Your task to perform on an android device: clear all cookies in the chrome app Image 0: 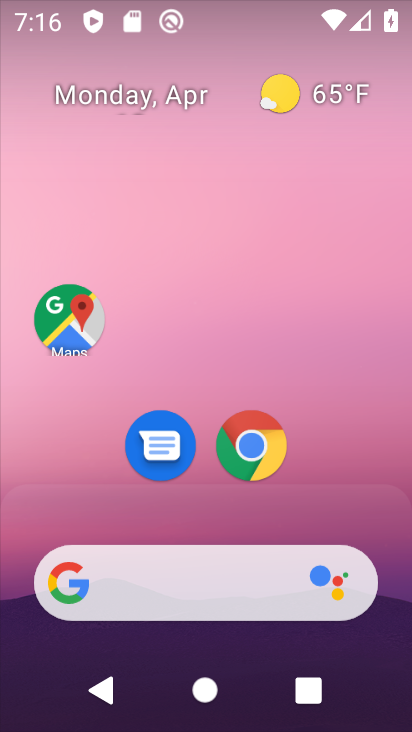
Step 0: click (256, 440)
Your task to perform on an android device: clear all cookies in the chrome app Image 1: 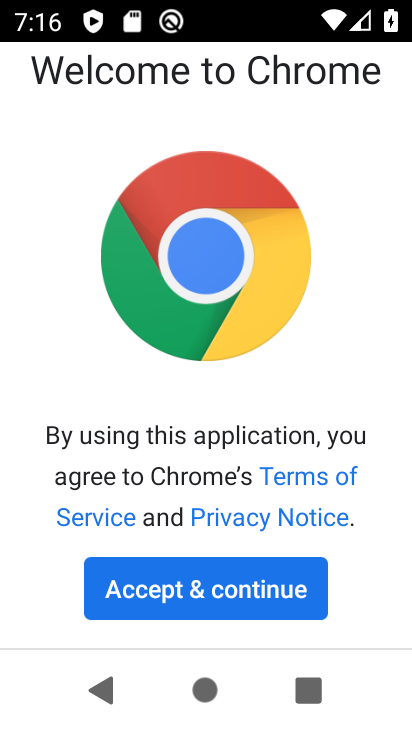
Step 1: click (223, 583)
Your task to perform on an android device: clear all cookies in the chrome app Image 2: 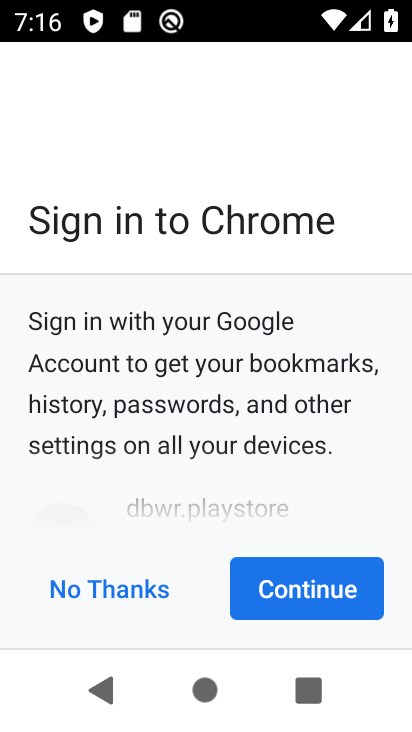
Step 2: click (259, 588)
Your task to perform on an android device: clear all cookies in the chrome app Image 3: 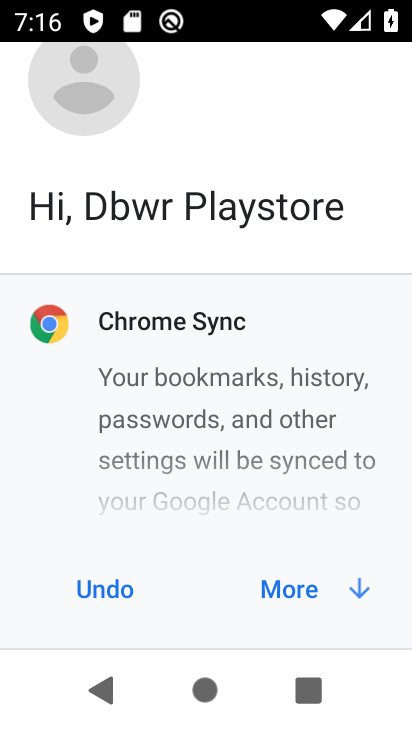
Step 3: click (273, 587)
Your task to perform on an android device: clear all cookies in the chrome app Image 4: 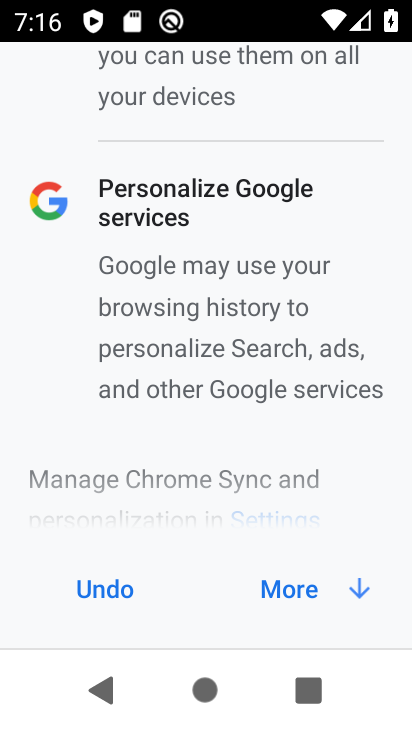
Step 4: click (273, 587)
Your task to perform on an android device: clear all cookies in the chrome app Image 5: 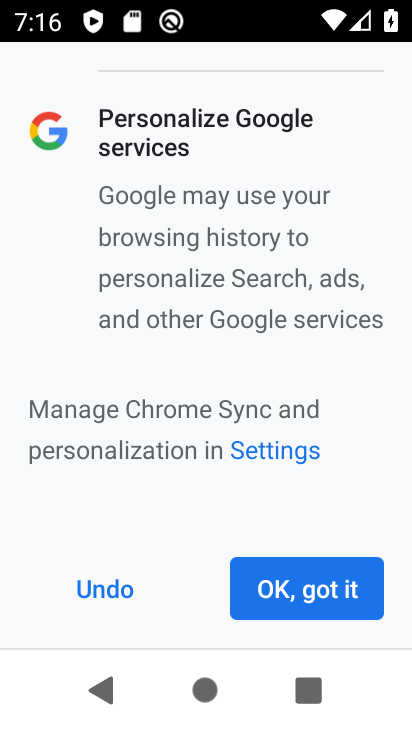
Step 5: click (273, 587)
Your task to perform on an android device: clear all cookies in the chrome app Image 6: 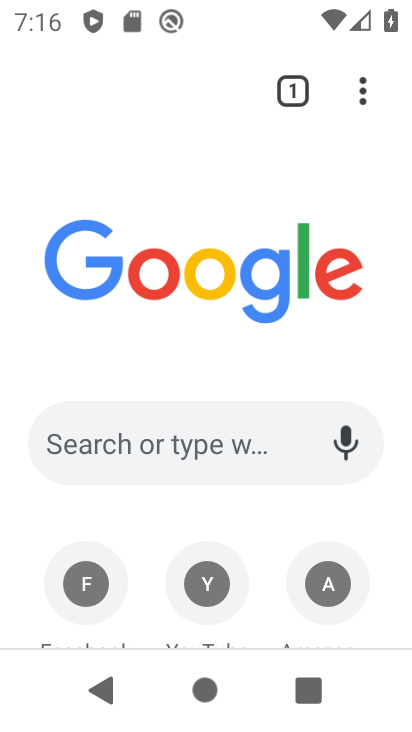
Step 6: click (362, 88)
Your task to perform on an android device: clear all cookies in the chrome app Image 7: 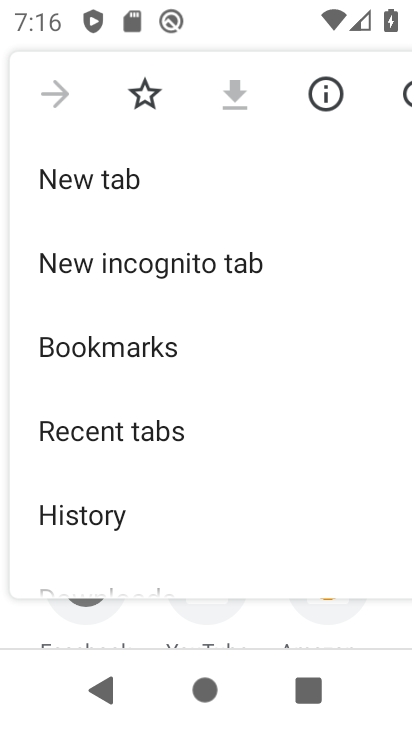
Step 7: click (70, 517)
Your task to perform on an android device: clear all cookies in the chrome app Image 8: 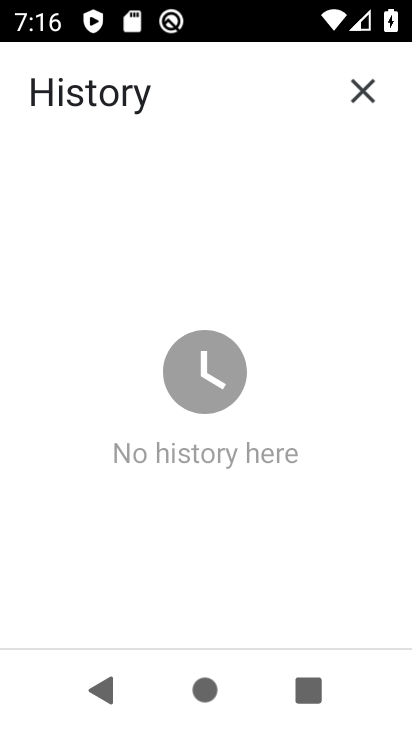
Step 8: task complete